Your task to perform on an android device: Search for pizza restaurants on Maps Image 0: 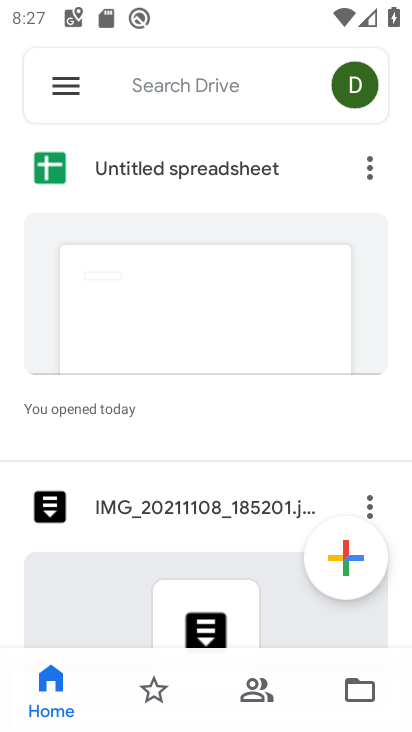
Step 0: press home button
Your task to perform on an android device: Search for pizza restaurants on Maps Image 1: 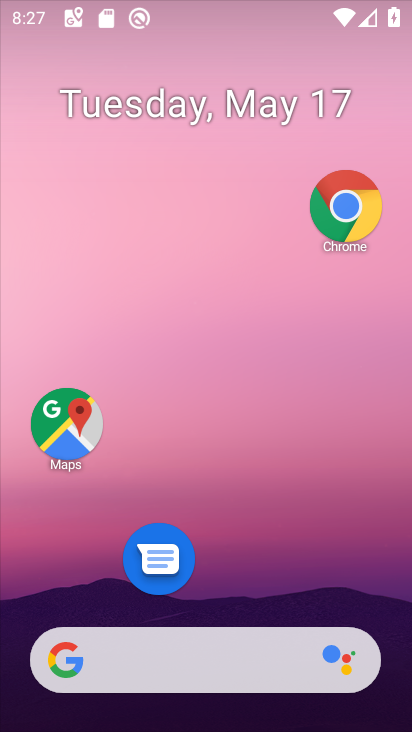
Step 1: drag from (224, 650) to (270, 143)
Your task to perform on an android device: Search for pizza restaurants on Maps Image 2: 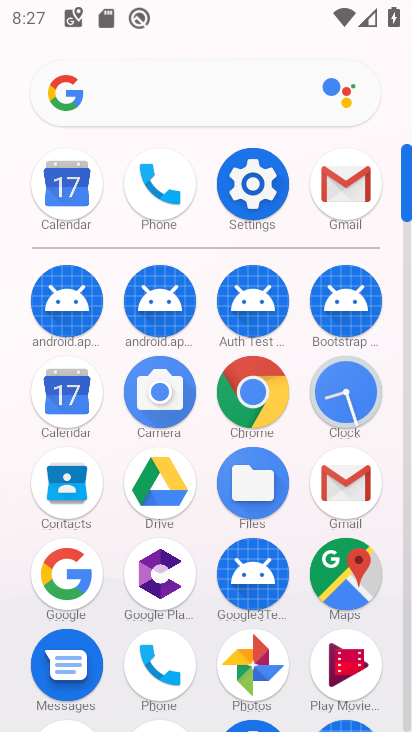
Step 2: click (336, 569)
Your task to perform on an android device: Search for pizza restaurants on Maps Image 3: 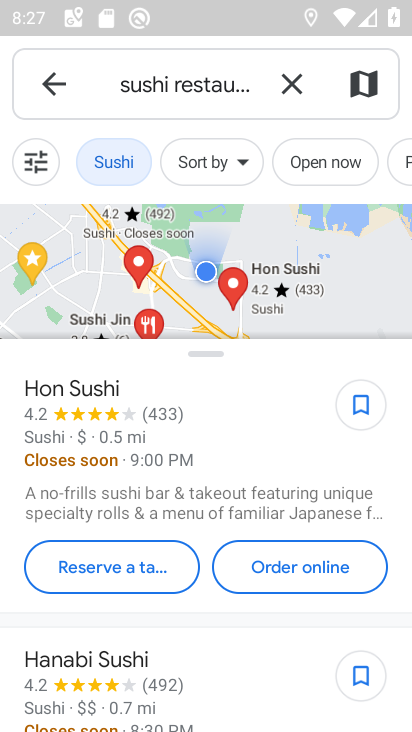
Step 3: click (297, 88)
Your task to perform on an android device: Search for pizza restaurants on Maps Image 4: 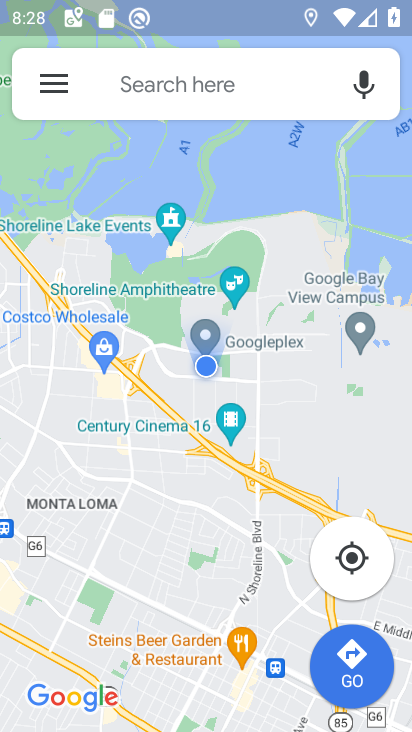
Step 4: click (239, 84)
Your task to perform on an android device: Search for pizza restaurants on Maps Image 5: 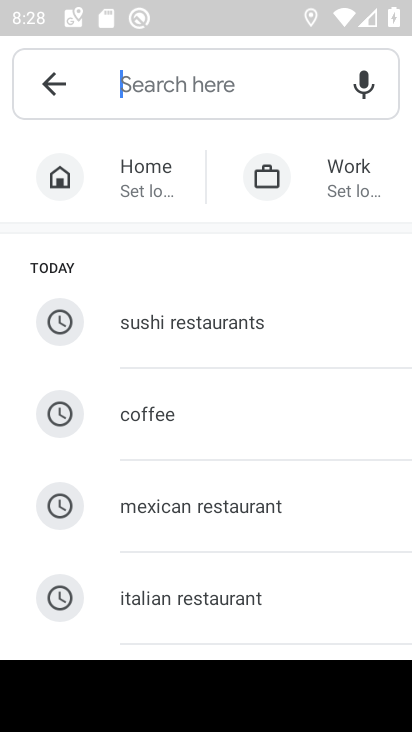
Step 5: drag from (230, 572) to (254, 321)
Your task to perform on an android device: Search for pizza restaurants on Maps Image 6: 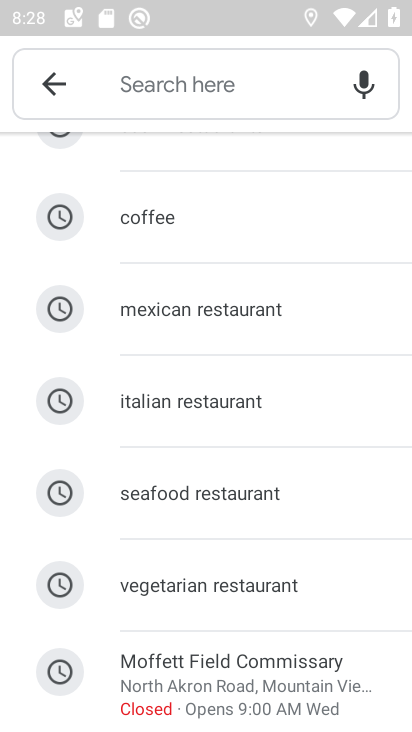
Step 6: drag from (231, 467) to (253, 237)
Your task to perform on an android device: Search for pizza restaurants on Maps Image 7: 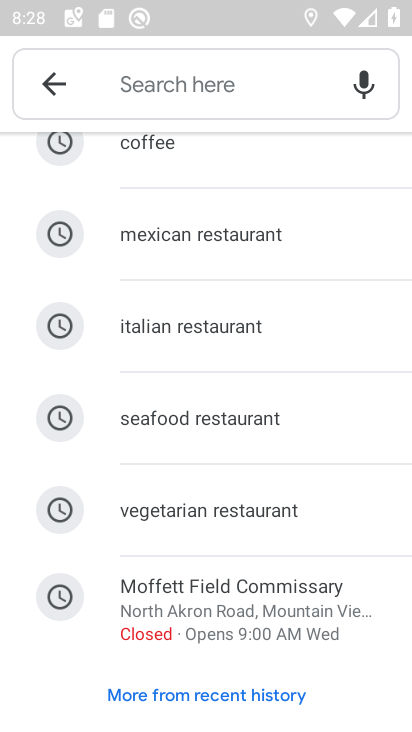
Step 7: drag from (271, 413) to (278, 578)
Your task to perform on an android device: Search for pizza restaurants on Maps Image 8: 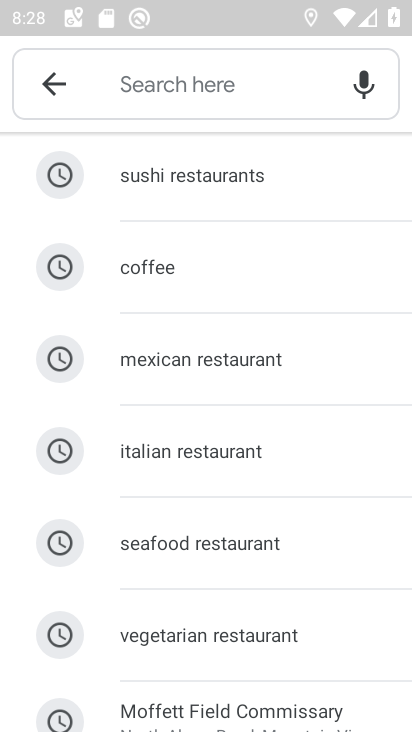
Step 8: type "pizza restaurants"
Your task to perform on an android device: Search for pizza restaurants on Maps Image 9: 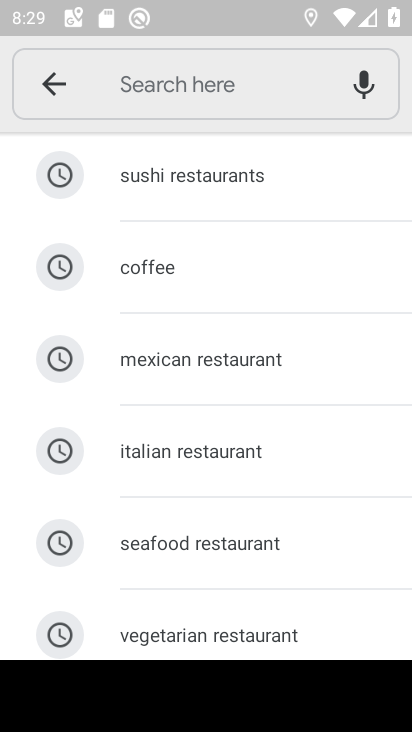
Step 9: click (209, 84)
Your task to perform on an android device: Search for pizza restaurants on Maps Image 10: 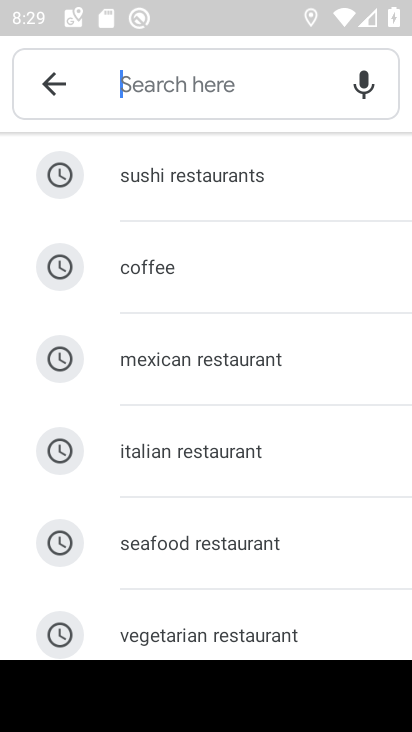
Step 10: type "pizza"
Your task to perform on an android device: Search for pizza restaurants on Maps Image 11: 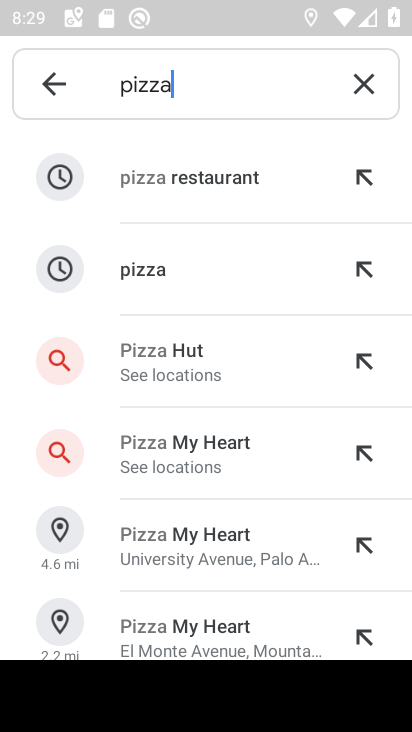
Step 11: click (239, 167)
Your task to perform on an android device: Search for pizza restaurants on Maps Image 12: 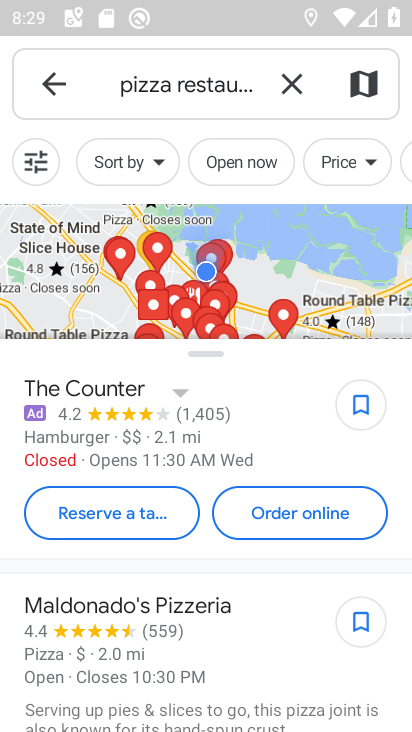
Step 12: task complete